Your task to perform on an android device: open wifi settings Image 0: 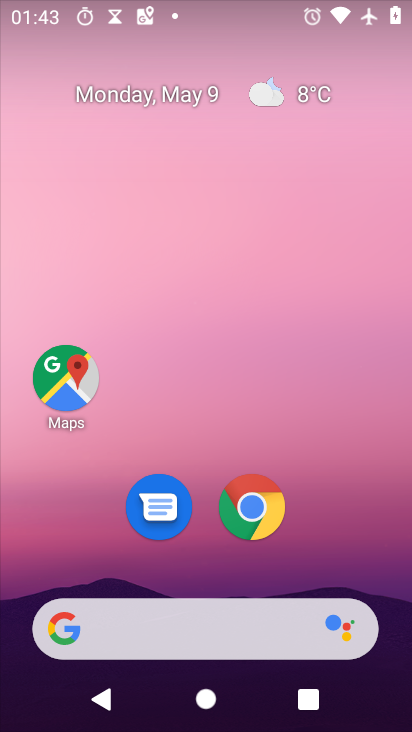
Step 0: drag from (220, 724) to (221, 221)
Your task to perform on an android device: open wifi settings Image 1: 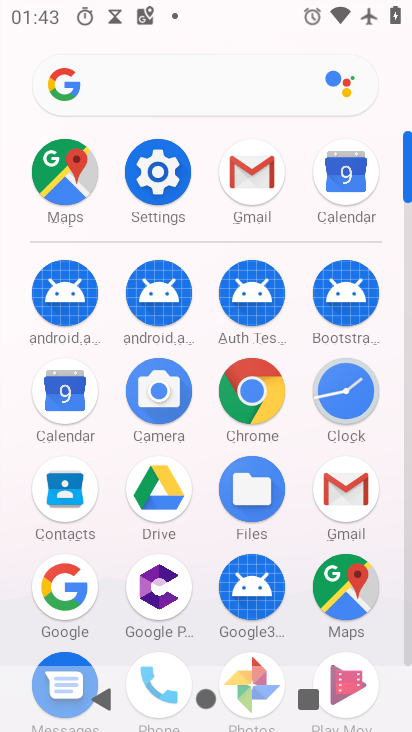
Step 1: click (153, 170)
Your task to perform on an android device: open wifi settings Image 2: 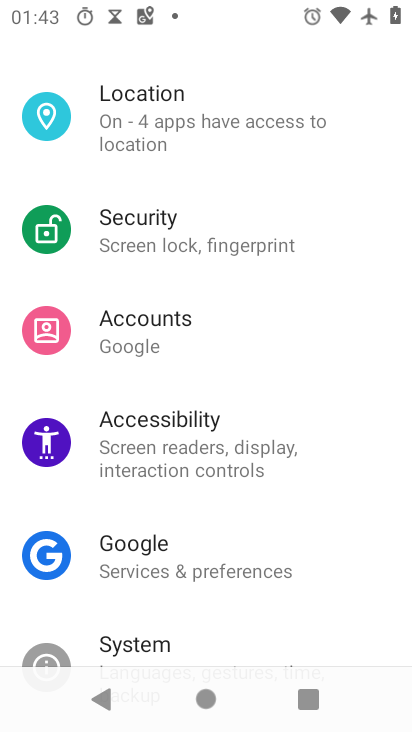
Step 2: drag from (328, 100) to (312, 608)
Your task to perform on an android device: open wifi settings Image 3: 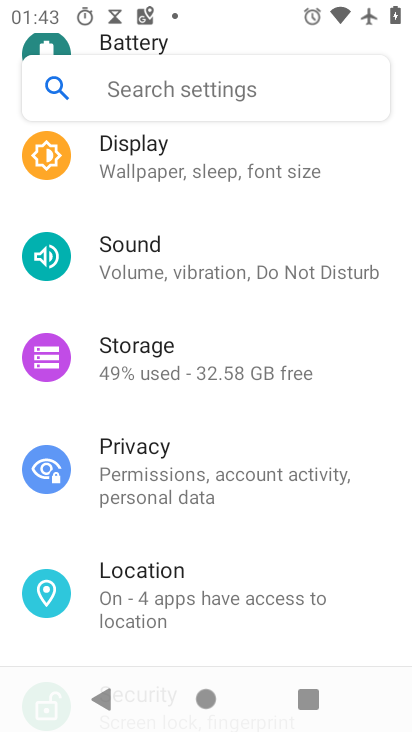
Step 3: drag from (333, 156) to (333, 598)
Your task to perform on an android device: open wifi settings Image 4: 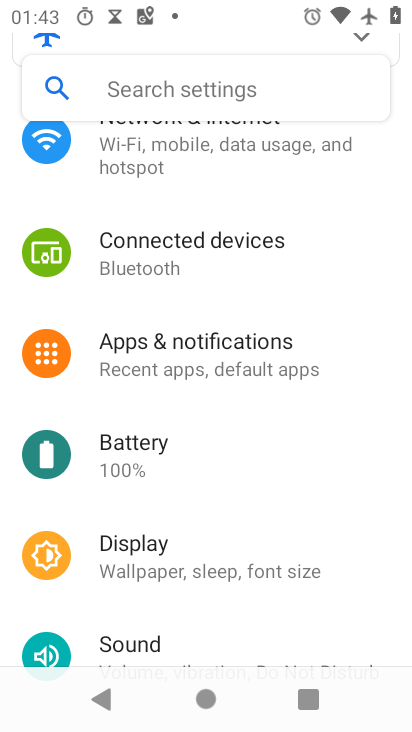
Step 4: drag from (313, 189) to (324, 607)
Your task to perform on an android device: open wifi settings Image 5: 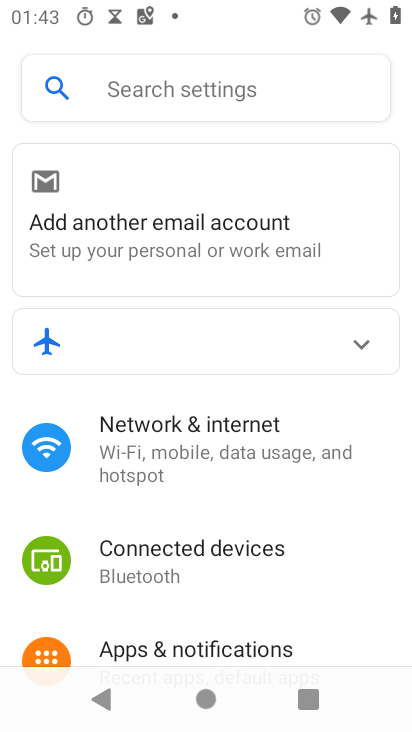
Step 5: click (168, 429)
Your task to perform on an android device: open wifi settings Image 6: 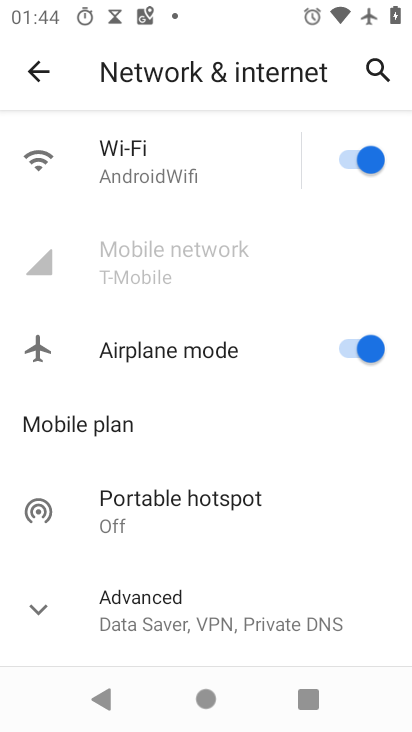
Step 6: click (134, 169)
Your task to perform on an android device: open wifi settings Image 7: 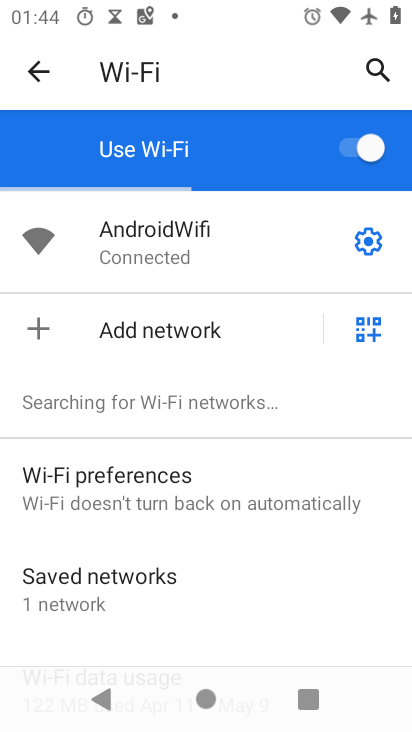
Step 7: task complete